Your task to perform on an android device: Show me popular games on the Play Store Image 0: 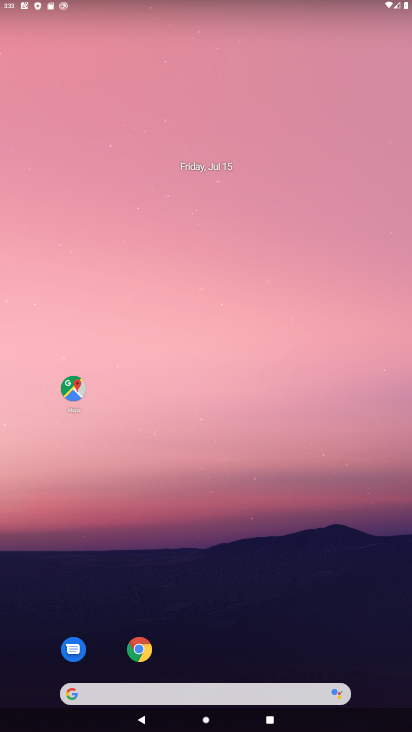
Step 0: drag from (212, 667) to (284, 293)
Your task to perform on an android device: Show me popular games on the Play Store Image 1: 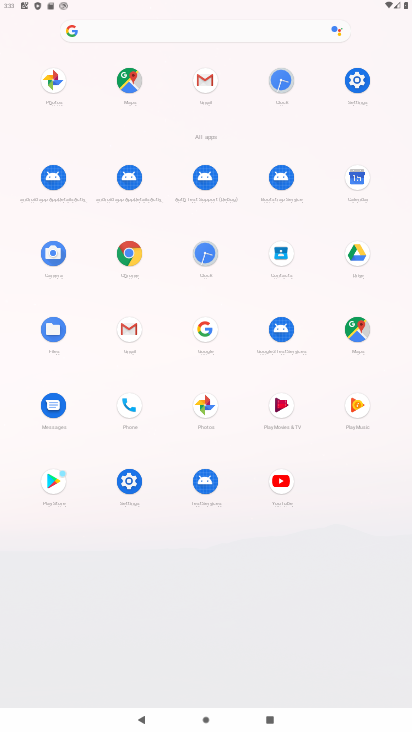
Step 1: click (68, 483)
Your task to perform on an android device: Show me popular games on the Play Store Image 2: 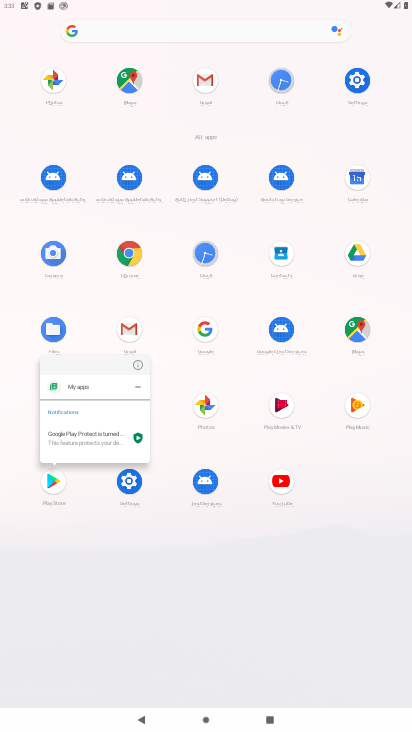
Step 2: click (53, 486)
Your task to perform on an android device: Show me popular games on the Play Store Image 3: 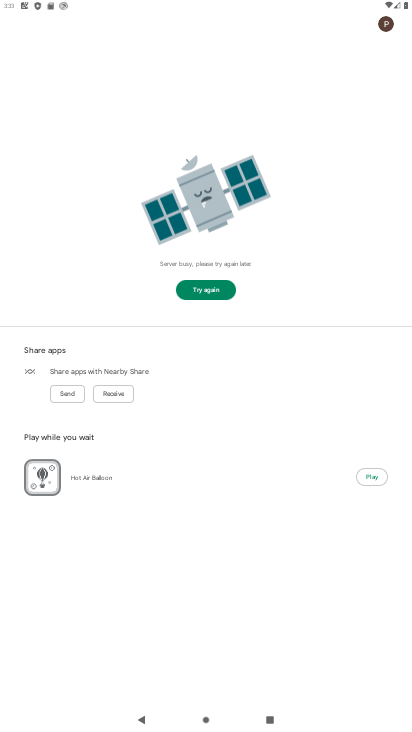
Step 3: task complete